Your task to perform on an android device: Open my contact list Image 0: 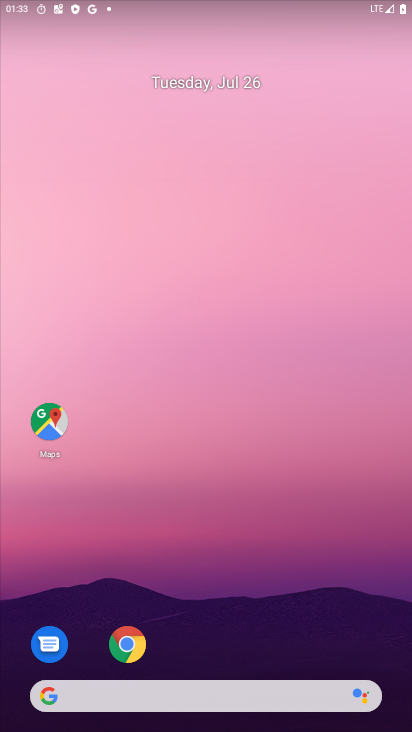
Step 0: drag from (224, 661) to (255, 101)
Your task to perform on an android device: Open my contact list Image 1: 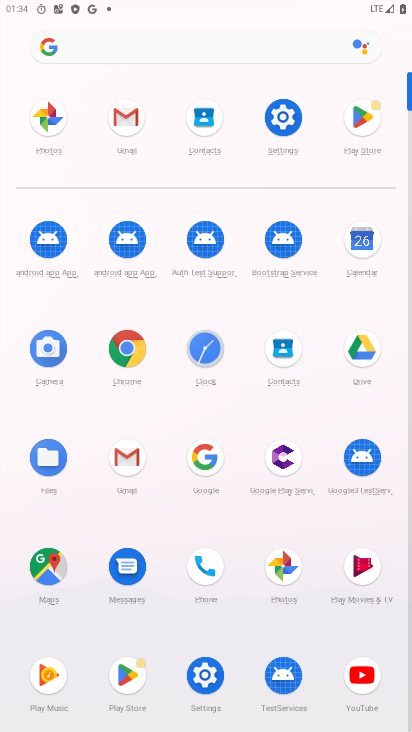
Step 1: click (199, 126)
Your task to perform on an android device: Open my contact list Image 2: 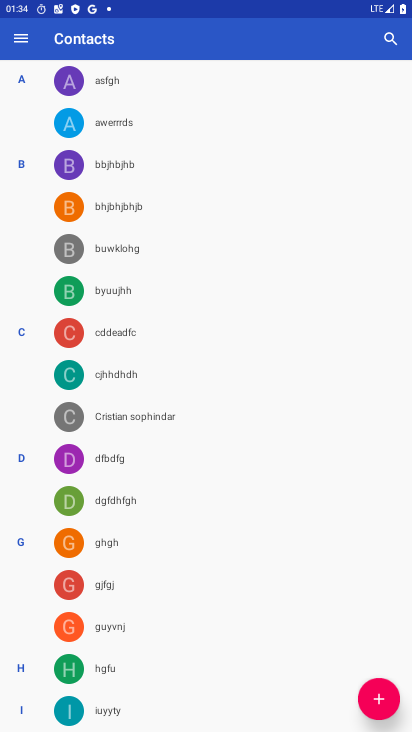
Step 2: task complete